Your task to perform on an android device: Open the calendar and show me this week's events? Image 0: 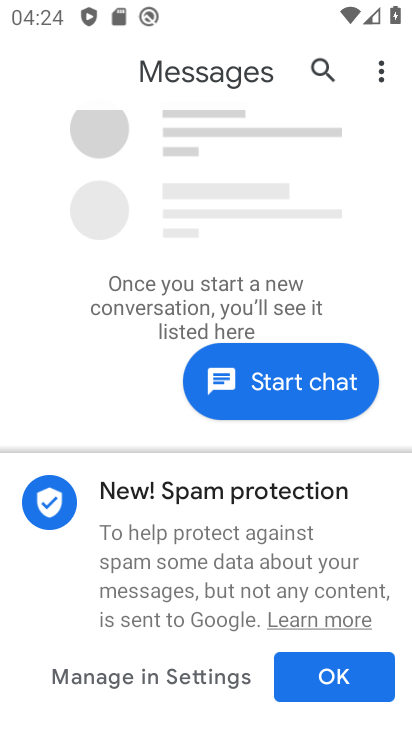
Step 0: press home button
Your task to perform on an android device: Open the calendar and show me this week's events? Image 1: 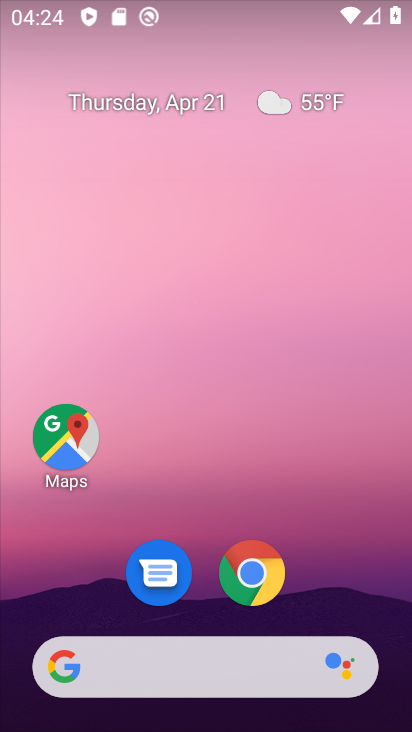
Step 1: drag from (306, 617) to (190, 44)
Your task to perform on an android device: Open the calendar and show me this week's events? Image 2: 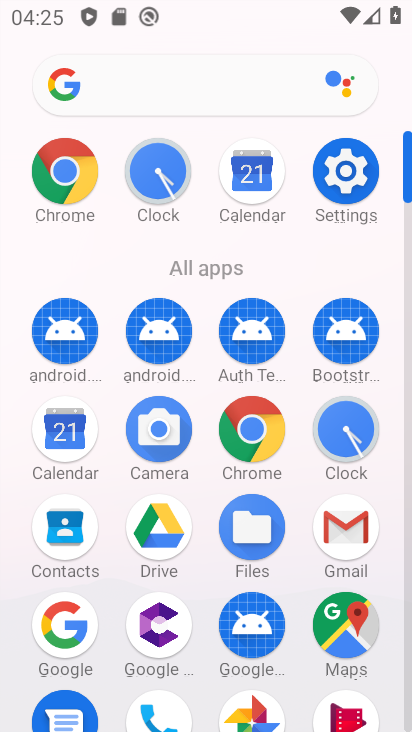
Step 2: click (57, 435)
Your task to perform on an android device: Open the calendar and show me this week's events? Image 3: 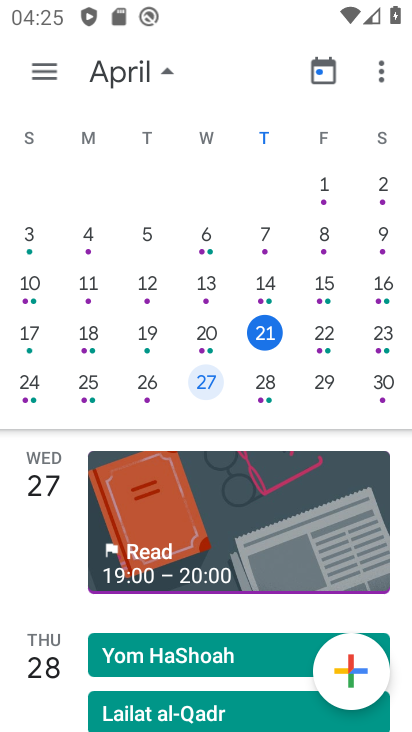
Step 3: click (259, 380)
Your task to perform on an android device: Open the calendar and show me this week's events? Image 4: 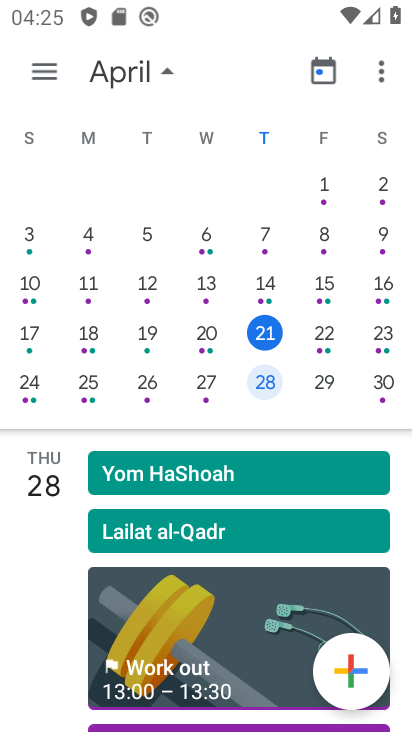
Step 4: task complete